Your task to perform on an android device: check data usage Image 0: 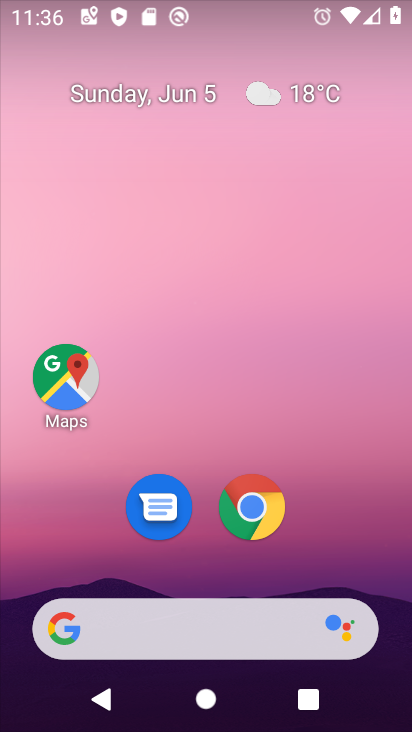
Step 0: drag from (228, 729) to (230, 93)
Your task to perform on an android device: check data usage Image 1: 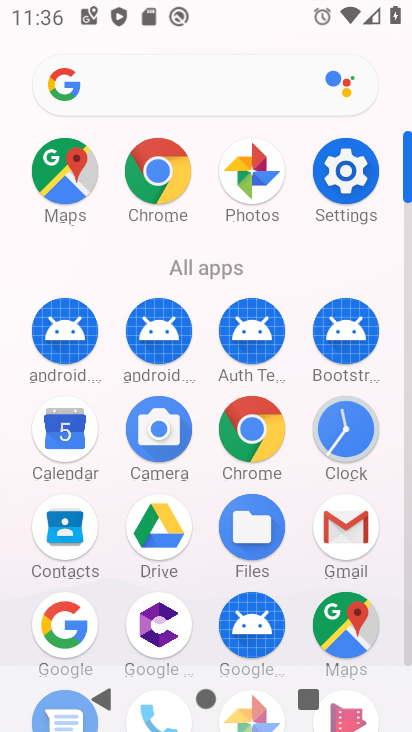
Step 1: click (357, 157)
Your task to perform on an android device: check data usage Image 2: 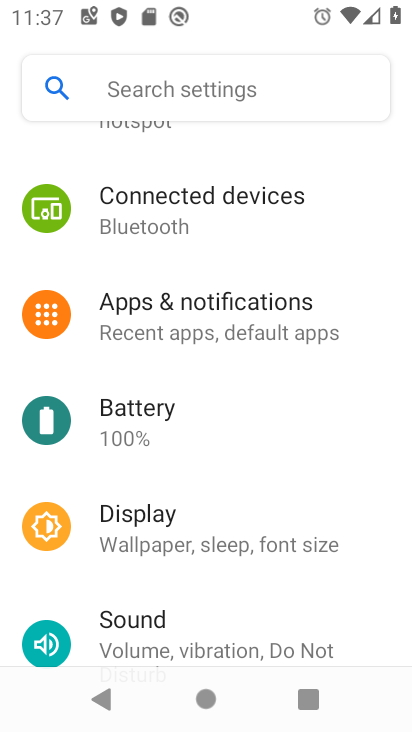
Step 2: drag from (264, 160) to (268, 529)
Your task to perform on an android device: check data usage Image 3: 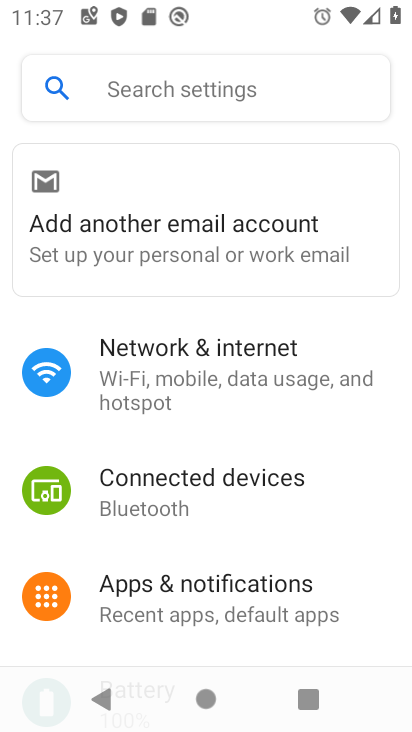
Step 3: click (162, 361)
Your task to perform on an android device: check data usage Image 4: 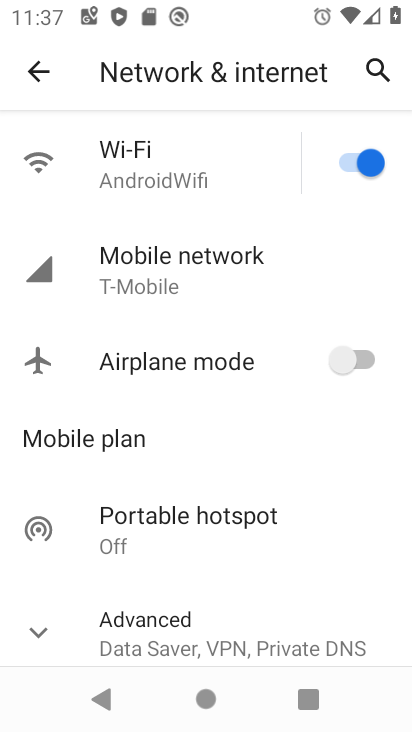
Step 4: click (151, 269)
Your task to perform on an android device: check data usage Image 5: 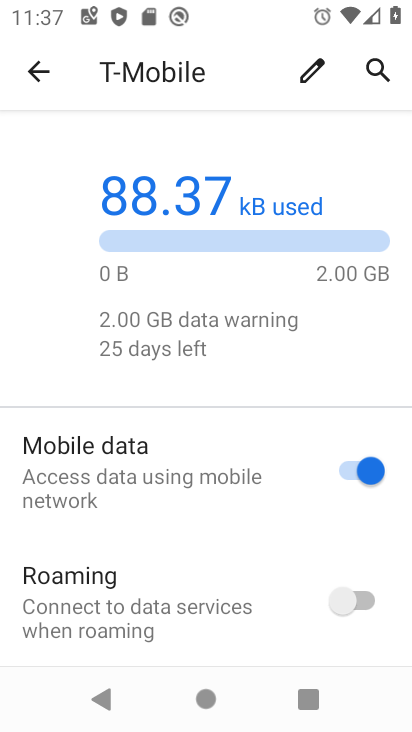
Step 5: drag from (124, 606) to (130, 322)
Your task to perform on an android device: check data usage Image 6: 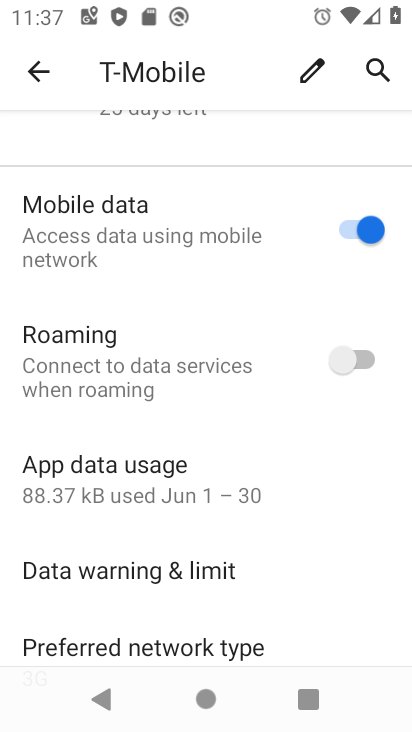
Step 6: click (110, 468)
Your task to perform on an android device: check data usage Image 7: 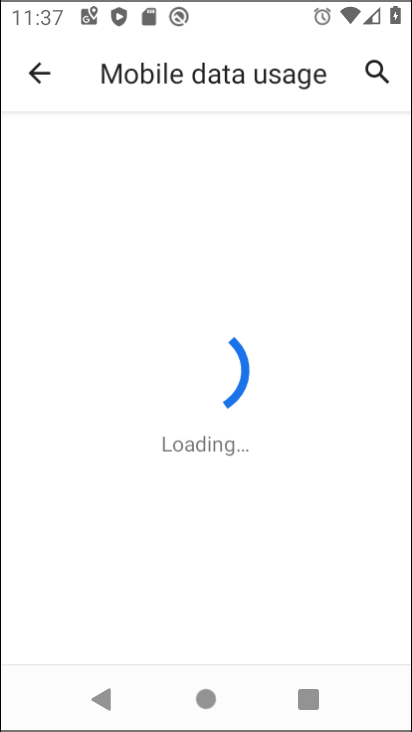
Step 7: click (110, 468)
Your task to perform on an android device: check data usage Image 8: 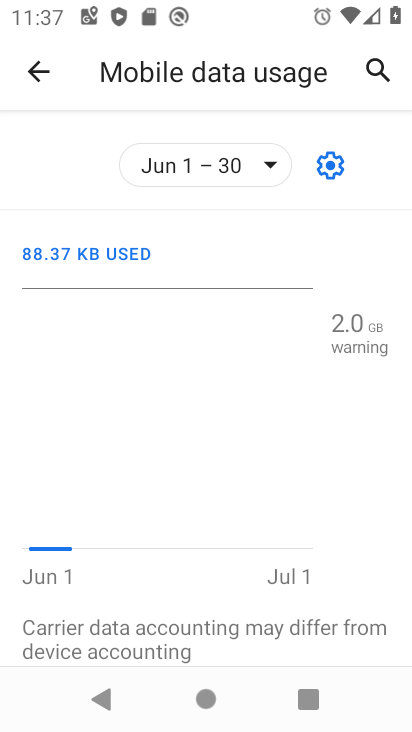
Step 8: task complete